Your task to perform on an android device: delete the emails in spam in the gmail app Image 0: 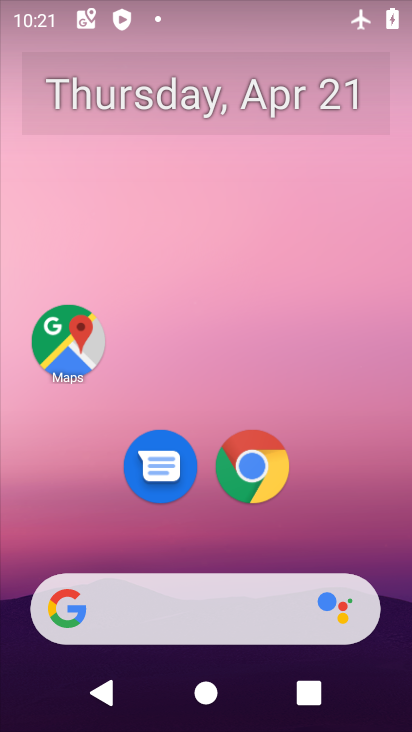
Step 0: drag from (264, 47) to (261, 418)
Your task to perform on an android device: delete the emails in spam in the gmail app Image 1: 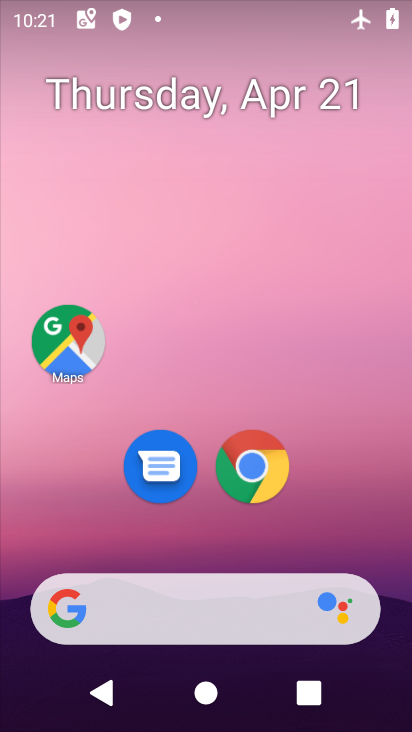
Step 1: drag from (308, 460) to (251, 90)
Your task to perform on an android device: delete the emails in spam in the gmail app Image 2: 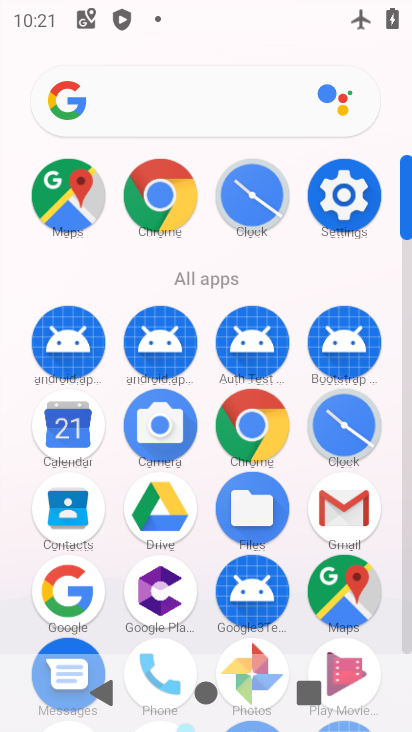
Step 2: click (354, 517)
Your task to perform on an android device: delete the emails in spam in the gmail app Image 3: 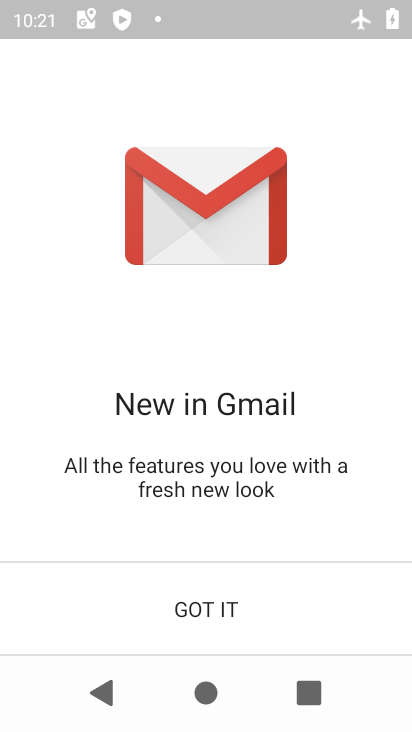
Step 3: click (212, 584)
Your task to perform on an android device: delete the emails in spam in the gmail app Image 4: 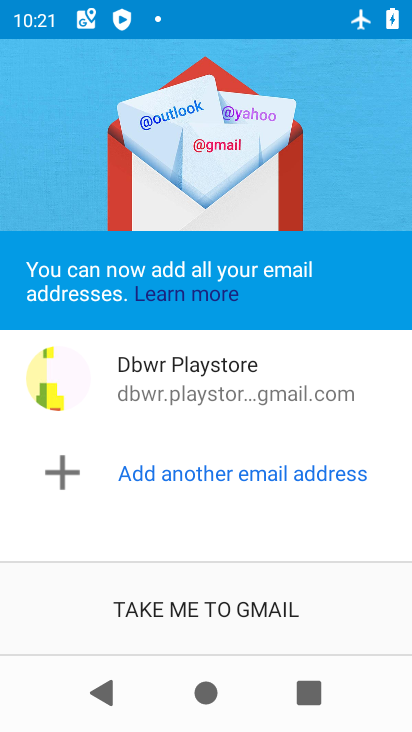
Step 4: click (214, 585)
Your task to perform on an android device: delete the emails in spam in the gmail app Image 5: 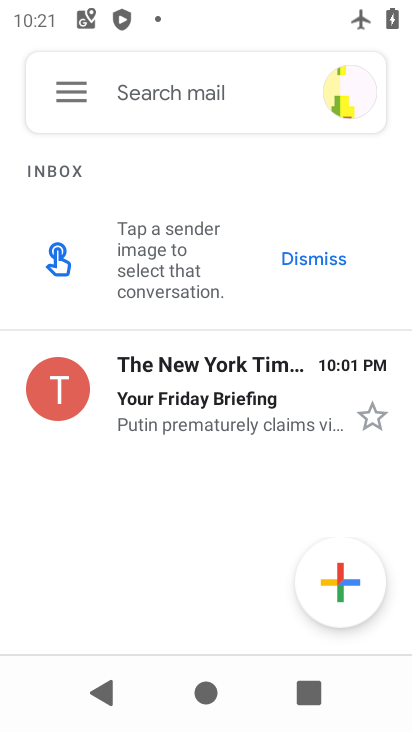
Step 5: click (70, 94)
Your task to perform on an android device: delete the emails in spam in the gmail app Image 6: 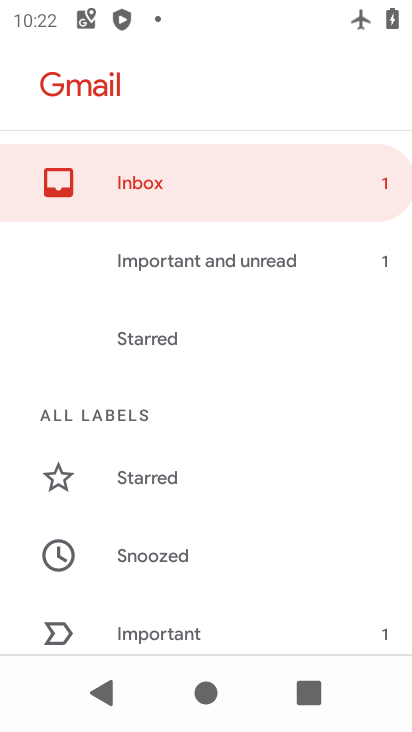
Step 6: drag from (162, 509) to (226, 92)
Your task to perform on an android device: delete the emails in spam in the gmail app Image 7: 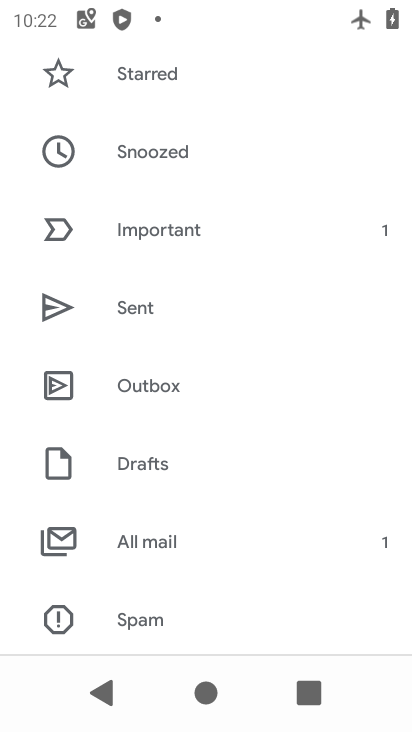
Step 7: drag from (190, 512) to (243, 234)
Your task to perform on an android device: delete the emails in spam in the gmail app Image 8: 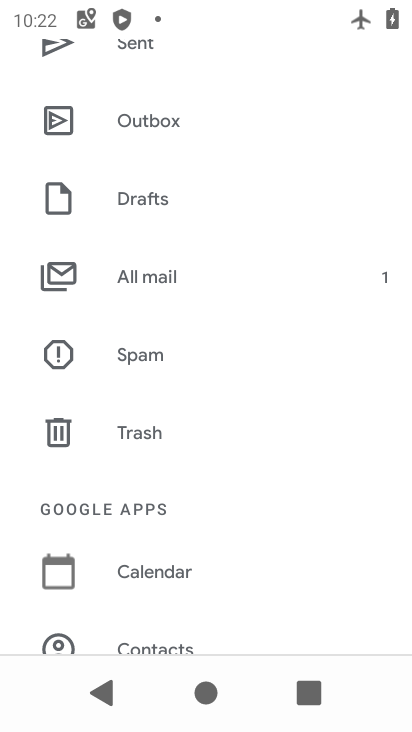
Step 8: click (138, 438)
Your task to perform on an android device: delete the emails in spam in the gmail app Image 9: 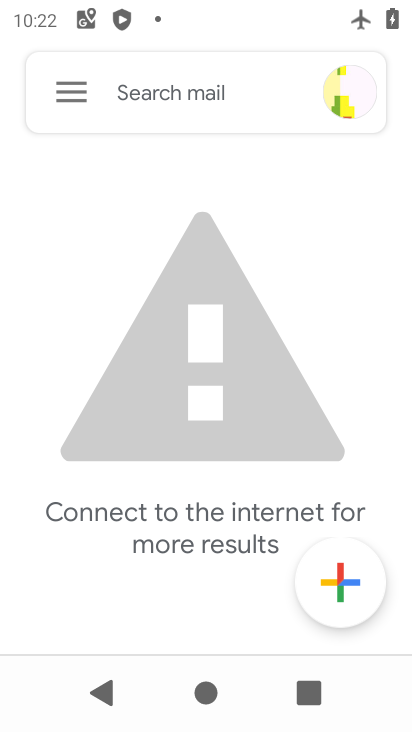
Step 9: task complete